Your task to perform on an android device: turn on the 12-hour format for clock Image 0: 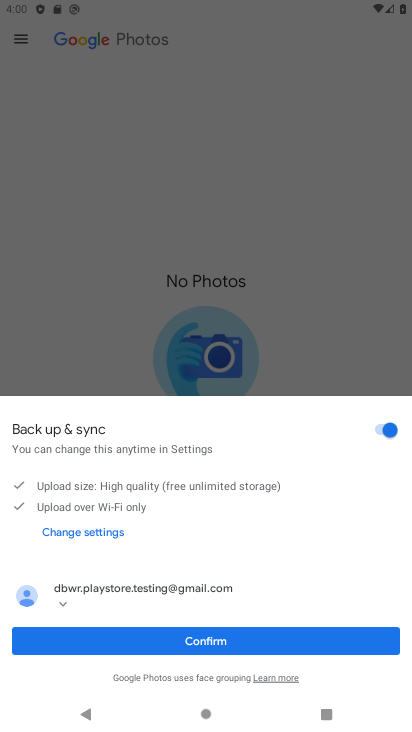
Step 0: press home button
Your task to perform on an android device: turn on the 12-hour format for clock Image 1: 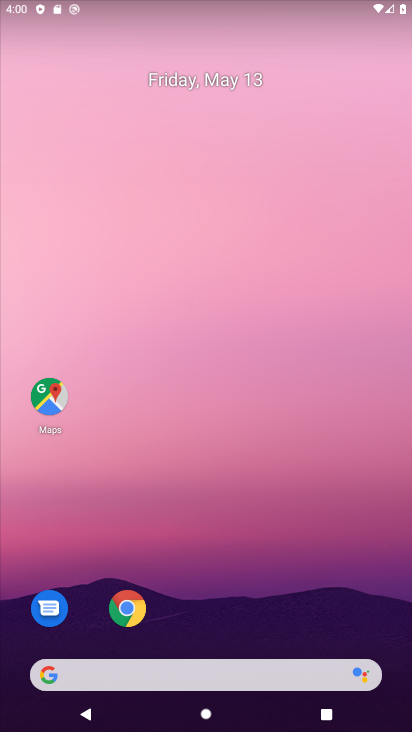
Step 1: drag from (294, 439) to (320, 0)
Your task to perform on an android device: turn on the 12-hour format for clock Image 2: 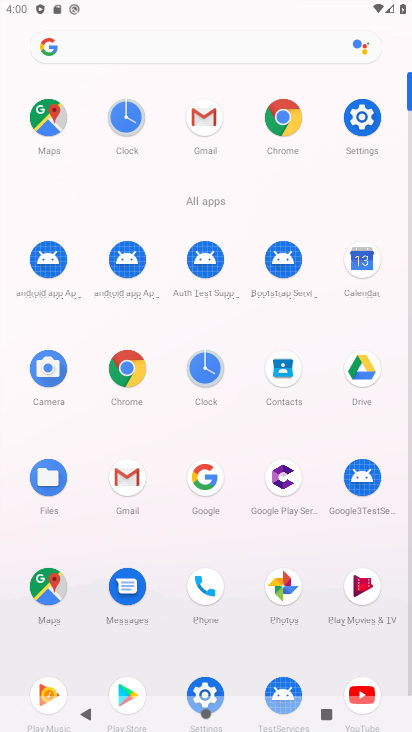
Step 2: click (199, 363)
Your task to perform on an android device: turn on the 12-hour format for clock Image 3: 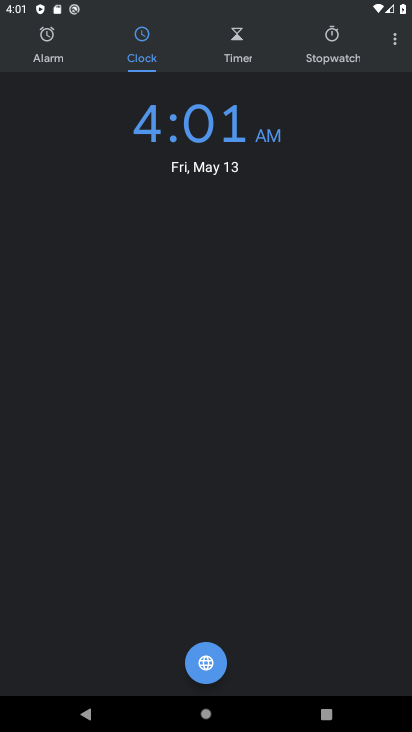
Step 3: click (394, 34)
Your task to perform on an android device: turn on the 12-hour format for clock Image 4: 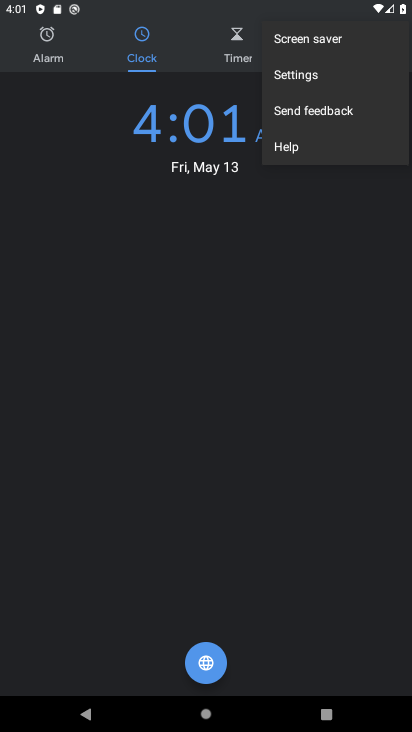
Step 4: click (301, 65)
Your task to perform on an android device: turn on the 12-hour format for clock Image 5: 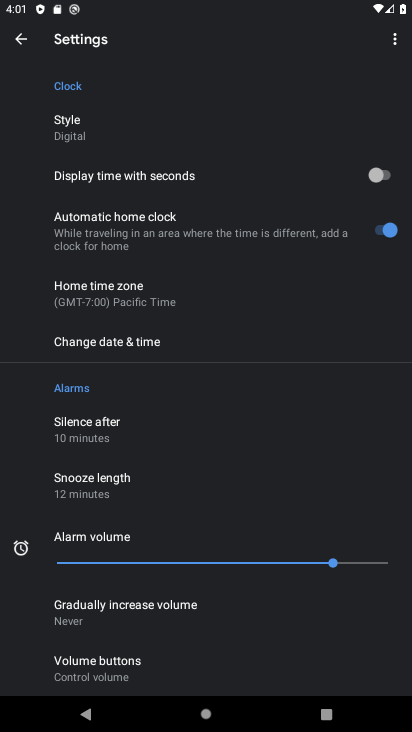
Step 5: drag from (213, 656) to (271, 333)
Your task to perform on an android device: turn on the 12-hour format for clock Image 6: 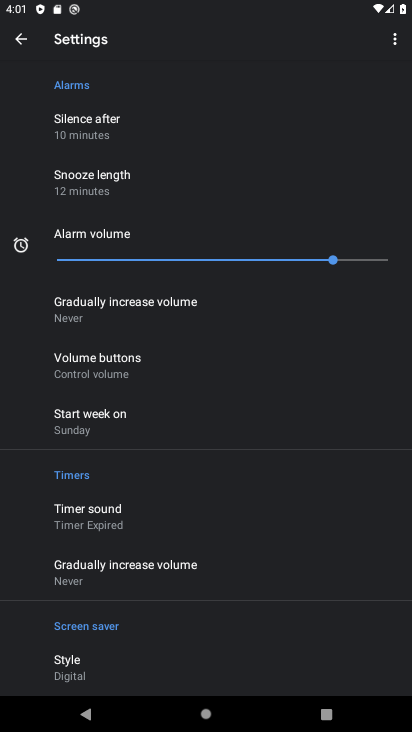
Step 6: drag from (168, 166) to (98, 652)
Your task to perform on an android device: turn on the 12-hour format for clock Image 7: 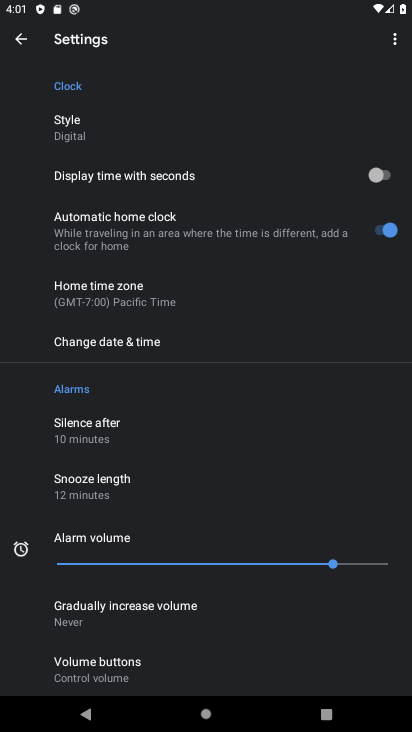
Step 7: click (122, 352)
Your task to perform on an android device: turn on the 12-hour format for clock Image 8: 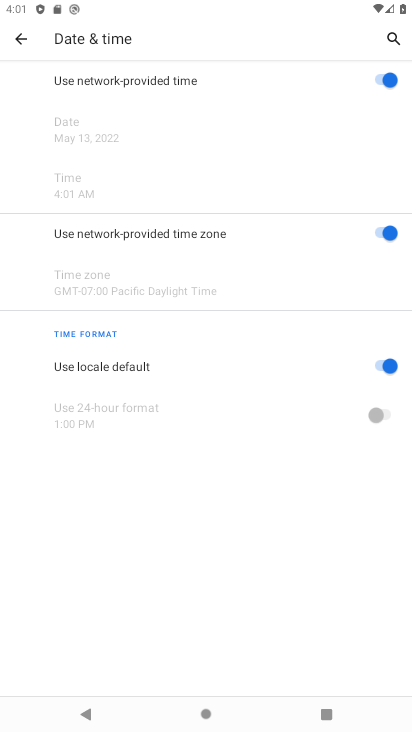
Step 8: click (388, 363)
Your task to perform on an android device: turn on the 12-hour format for clock Image 9: 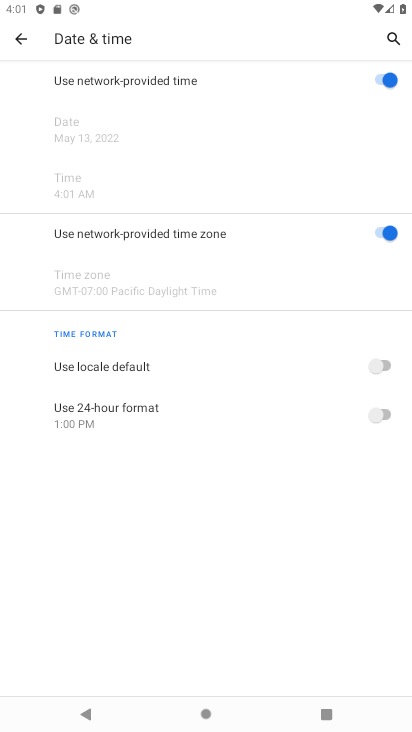
Step 9: task complete